Your task to perform on an android device: turn off javascript in the chrome app Image 0: 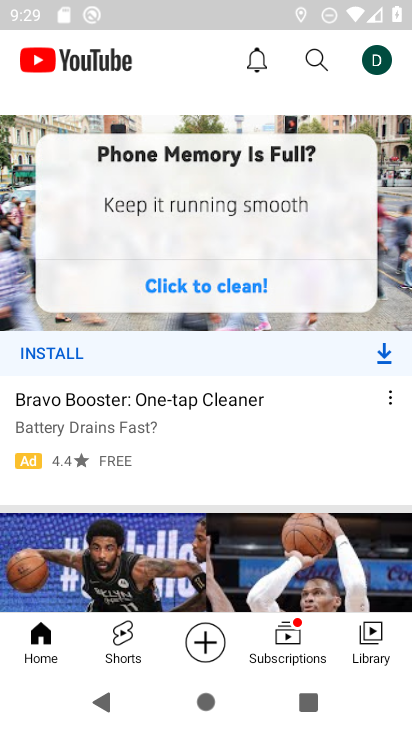
Step 0: press back button
Your task to perform on an android device: turn off javascript in the chrome app Image 1: 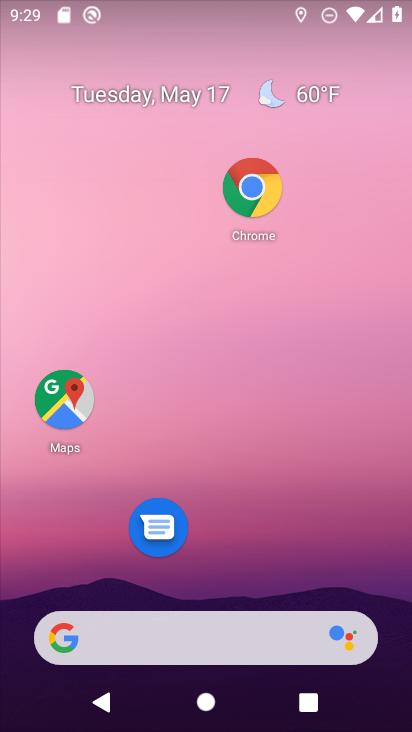
Step 1: click (256, 188)
Your task to perform on an android device: turn off javascript in the chrome app Image 2: 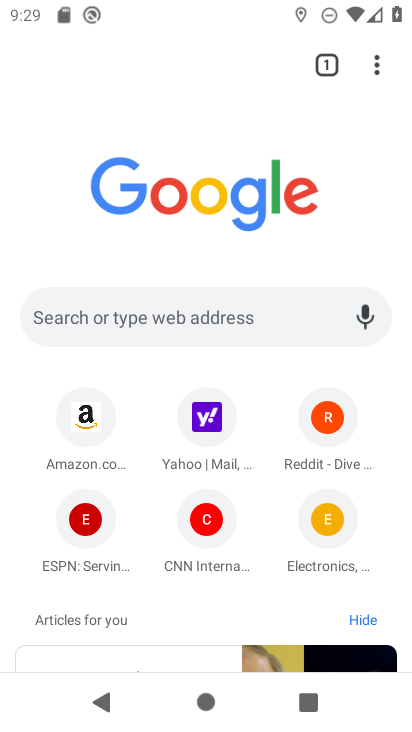
Step 2: click (373, 62)
Your task to perform on an android device: turn off javascript in the chrome app Image 3: 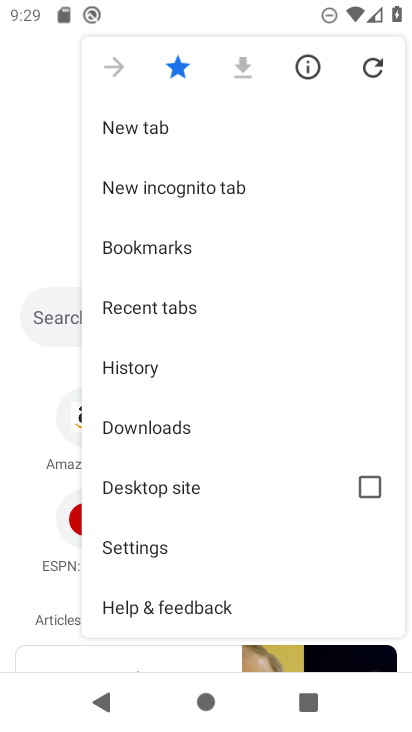
Step 3: click (167, 549)
Your task to perform on an android device: turn off javascript in the chrome app Image 4: 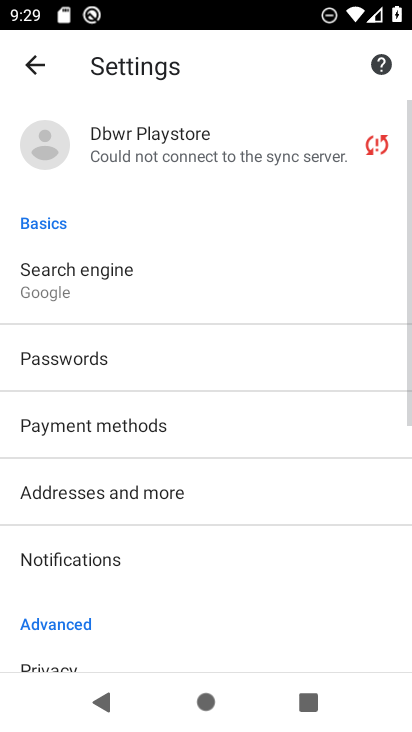
Step 4: drag from (161, 569) to (167, 184)
Your task to perform on an android device: turn off javascript in the chrome app Image 5: 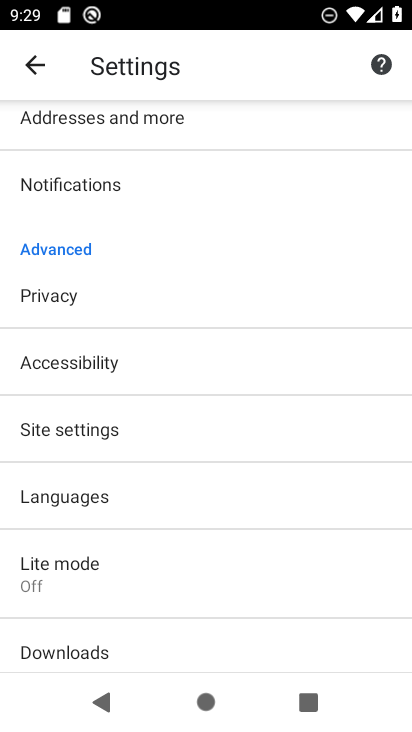
Step 5: click (163, 436)
Your task to perform on an android device: turn off javascript in the chrome app Image 6: 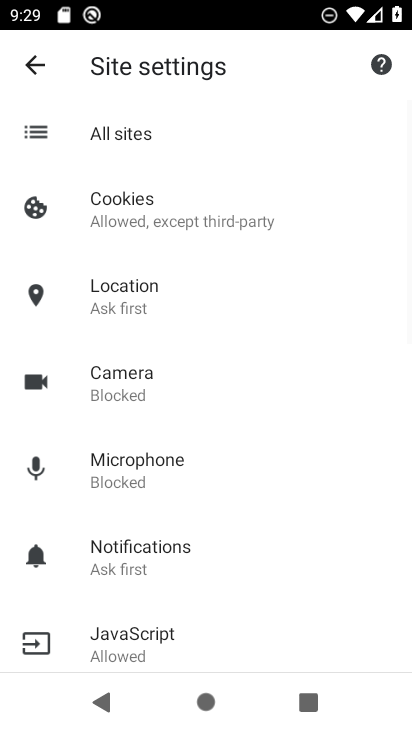
Step 6: click (165, 611)
Your task to perform on an android device: turn off javascript in the chrome app Image 7: 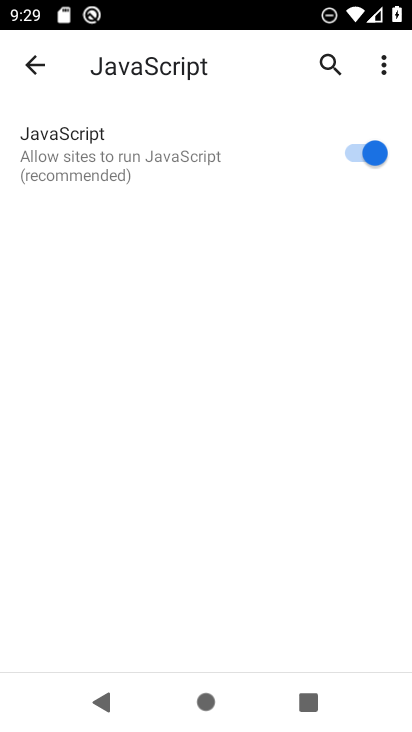
Step 7: click (359, 145)
Your task to perform on an android device: turn off javascript in the chrome app Image 8: 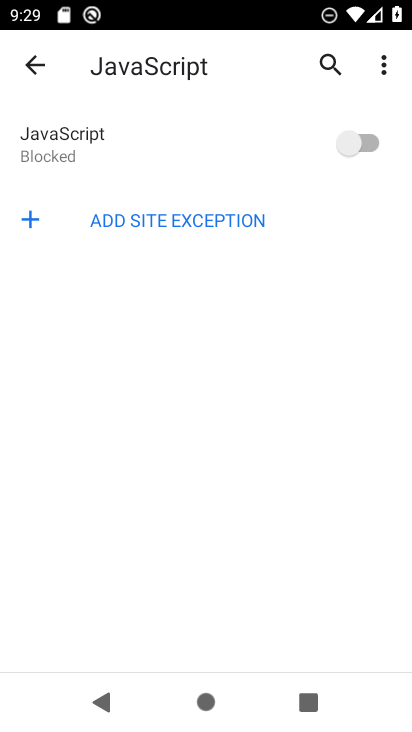
Step 8: task complete